Your task to perform on an android device: Go to settings Image 0: 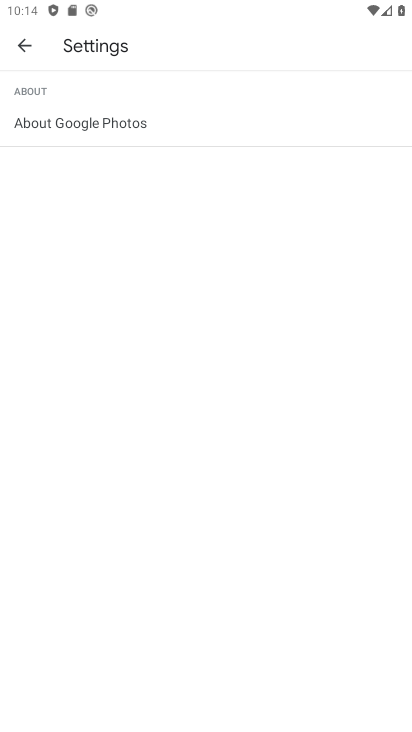
Step 0: press back button
Your task to perform on an android device: Go to settings Image 1: 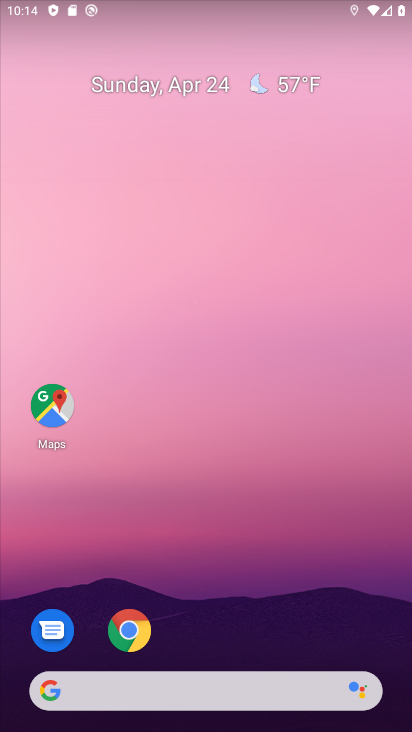
Step 1: drag from (197, 545) to (219, 48)
Your task to perform on an android device: Go to settings Image 2: 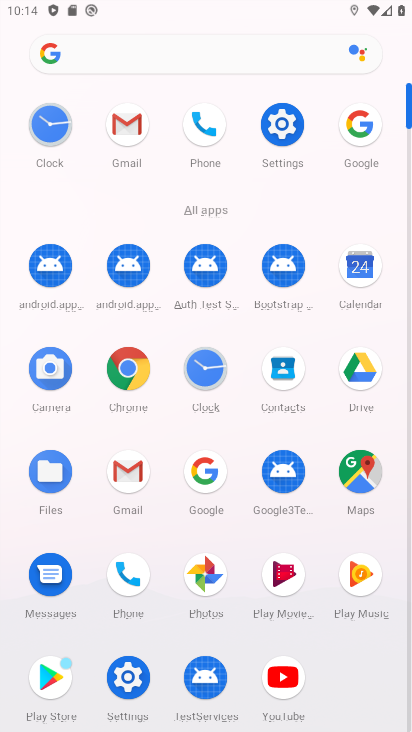
Step 2: click (282, 121)
Your task to perform on an android device: Go to settings Image 3: 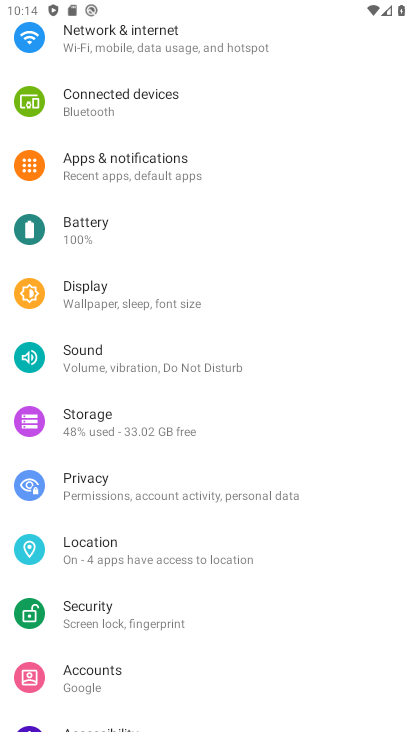
Step 3: task complete